Your task to perform on an android device: Open Youtube and go to "Your channel" Image 0: 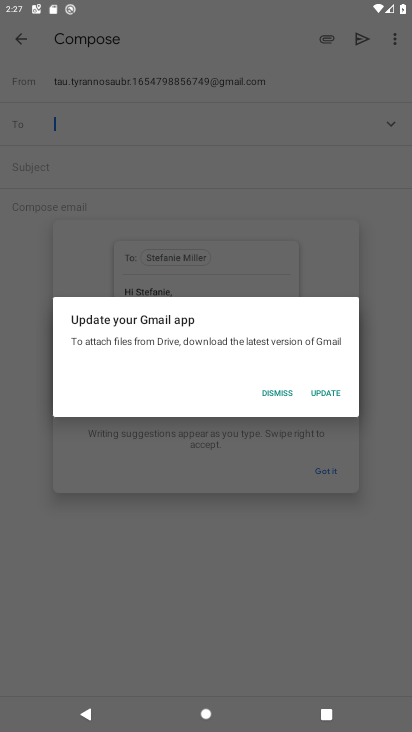
Step 0: press home button
Your task to perform on an android device: Open Youtube and go to "Your channel" Image 1: 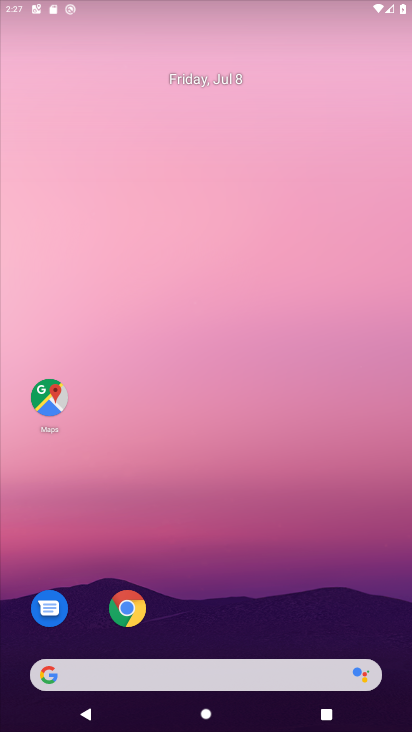
Step 1: drag from (246, 548) to (240, 274)
Your task to perform on an android device: Open Youtube and go to "Your channel" Image 2: 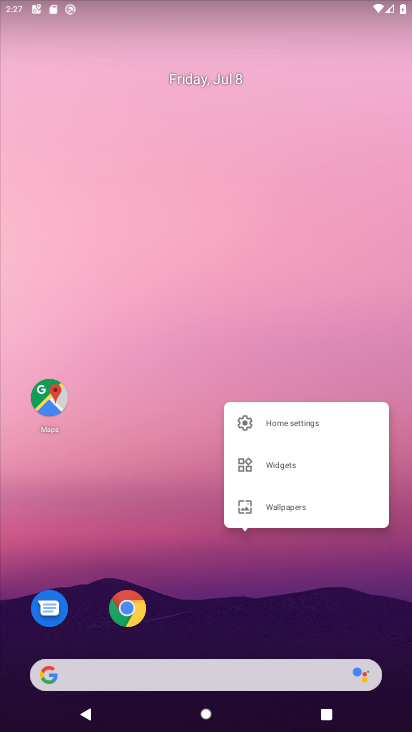
Step 2: click (214, 548)
Your task to perform on an android device: Open Youtube and go to "Your channel" Image 3: 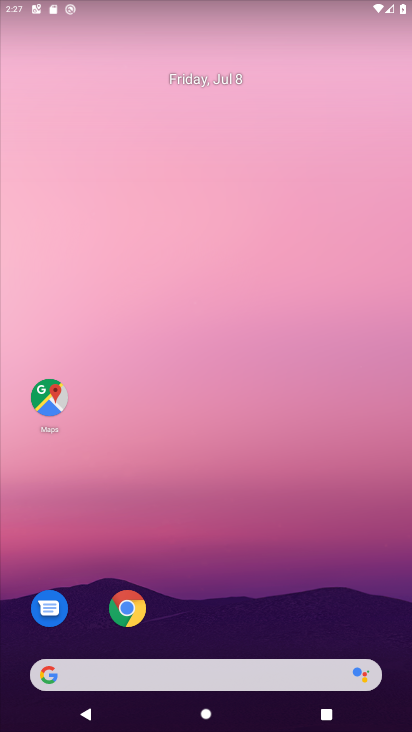
Step 3: drag from (237, 617) to (271, 268)
Your task to perform on an android device: Open Youtube and go to "Your channel" Image 4: 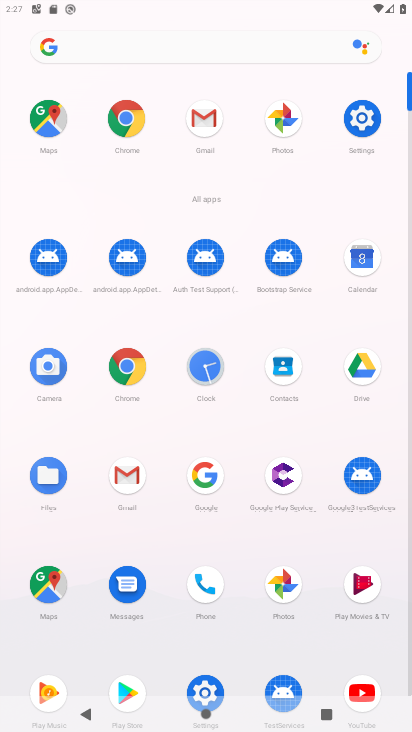
Step 4: drag from (346, 647) to (330, 341)
Your task to perform on an android device: Open Youtube and go to "Your channel" Image 5: 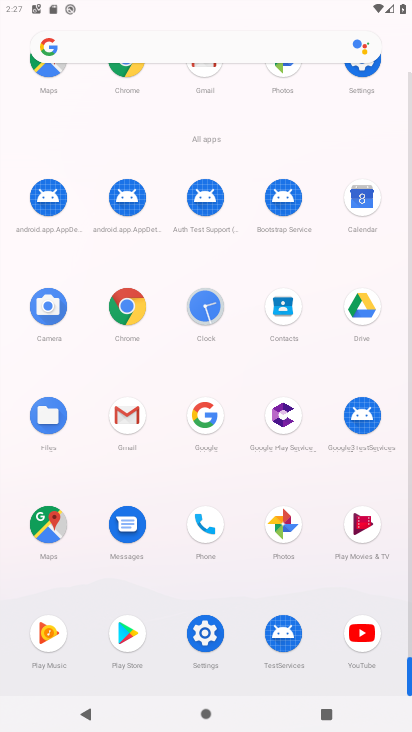
Step 5: click (359, 634)
Your task to perform on an android device: Open Youtube and go to "Your channel" Image 6: 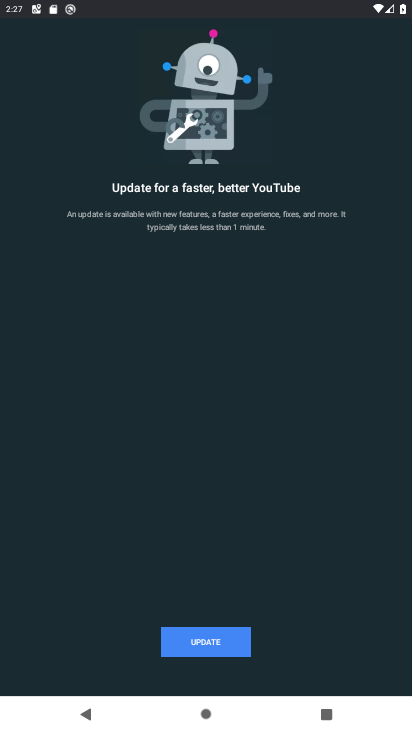
Step 6: task complete